Your task to perform on an android device: Open battery settings Image 0: 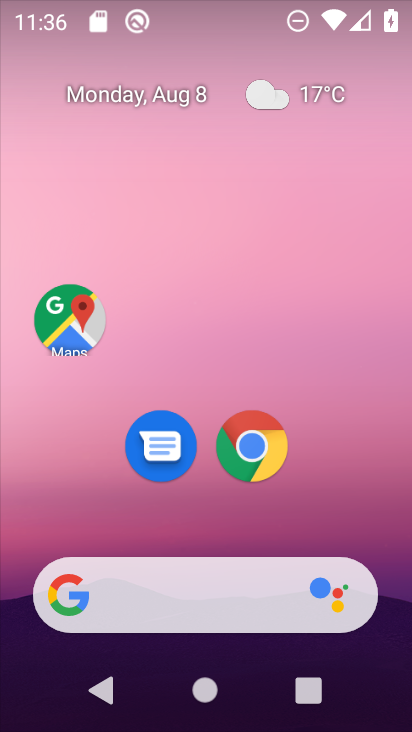
Step 0: drag from (391, 624) to (388, 86)
Your task to perform on an android device: Open battery settings Image 1: 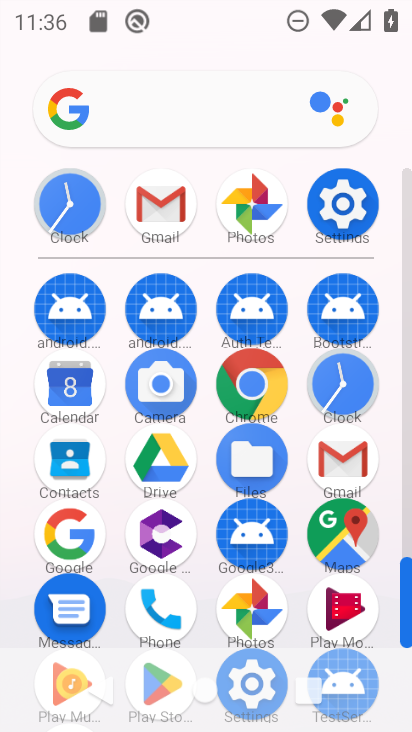
Step 1: drag from (404, 545) to (405, 491)
Your task to perform on an android device: Open battery settings Image 2: 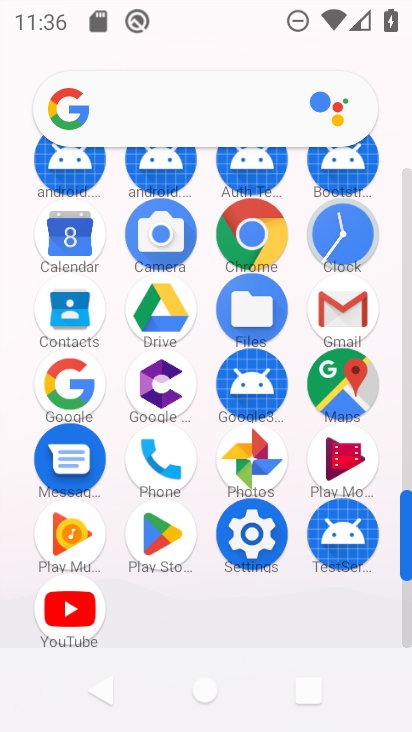
Step 2: click (248, 532)
Your task to perform on an android device: Open battery settings Image 3: 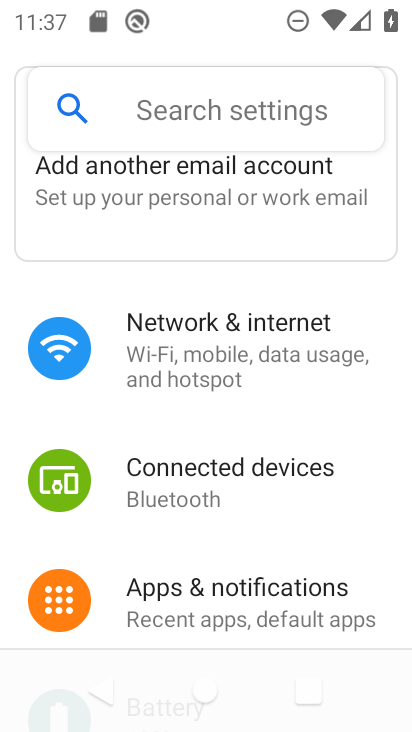
Step 3: drag from (361, 573) to (369, 202)
Your task to perform on an android device: Open battery settings Image 4: 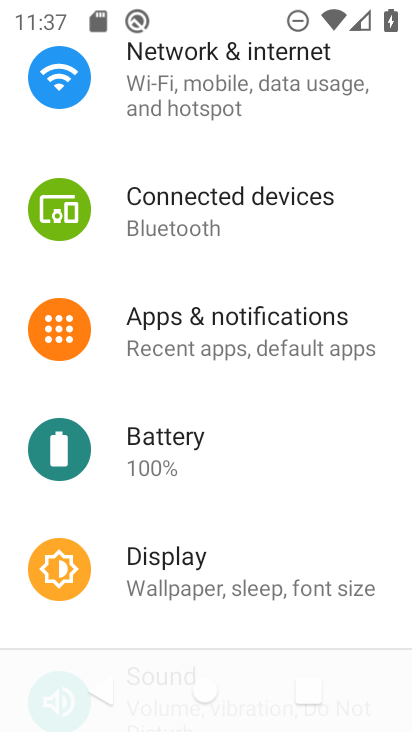
Step 4: click (168, 445)
Your task to perform on an android device: Open battery settings Image 5: 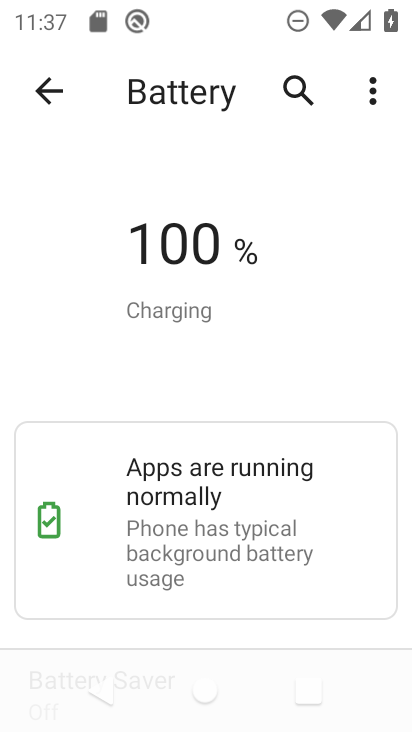
Step 5: task complete